Your task to perform on an android device: See recent photos Image 0: 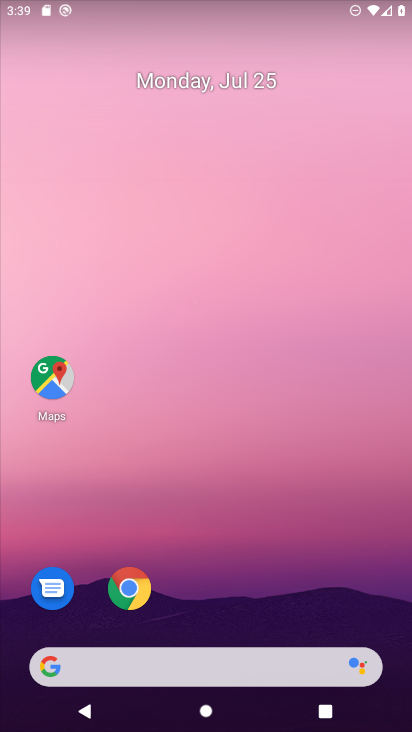
Step 0: drag from (281, 565) to (278, 208)
Your task to perform on an android device: See recent photos Image 1: 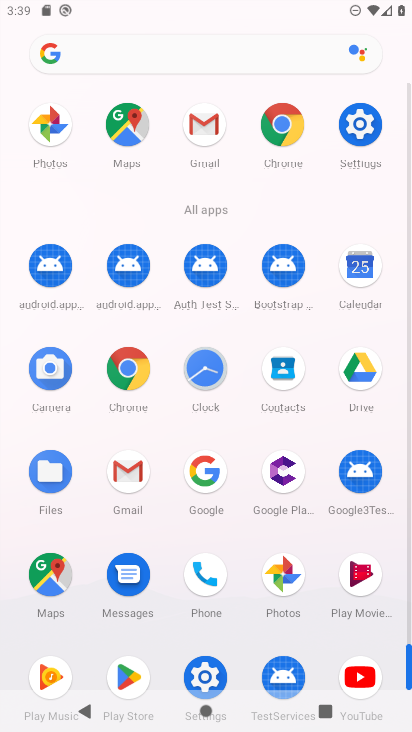
Step 1: drag from (204, 499) to (222, 242)
Your task to perform on an android device: See recent photos Image 2: 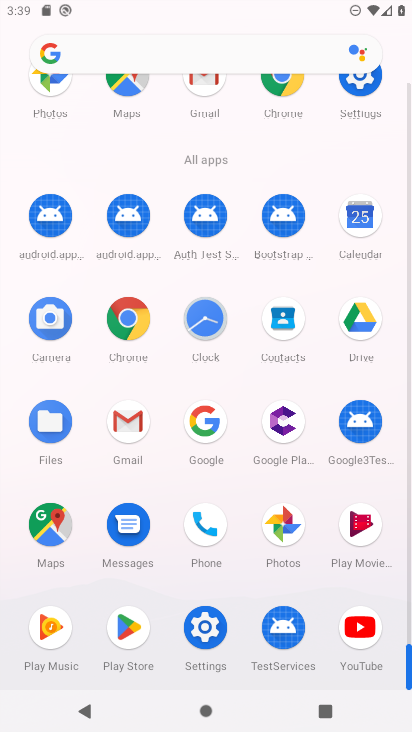
Step 2: click (275, 511)
Your task to perform on an android device: See recent photos Image 3: 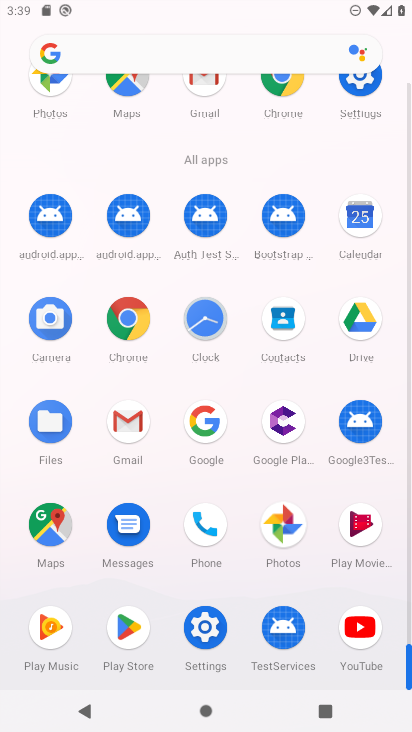
Step 3: click (281, 515)
Your task to perform on an android device: See recent photos Image 4: 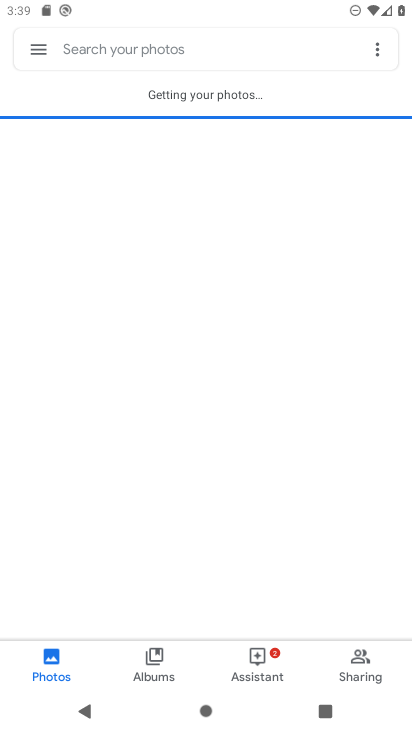
Step 4: click (296, 532)
Your task to perform on an android device: See recent photos Image 5: 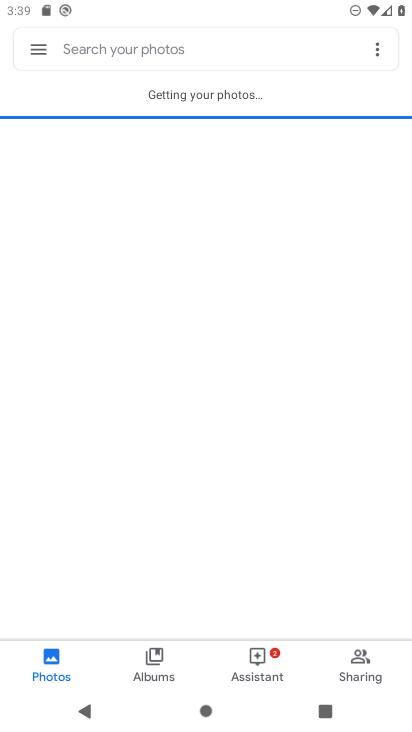
Step 5: click (296, 528)
Your task to perform on an android device: See recent photos Image 6: 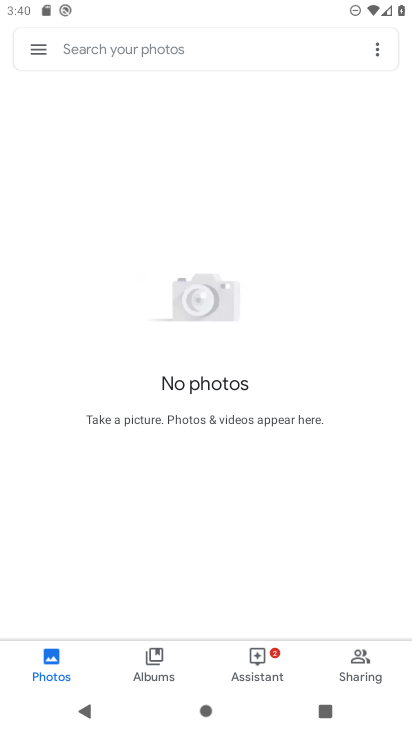
Step 6: task complete